Your task to perform on an android device: Open Google Maps Image 0: 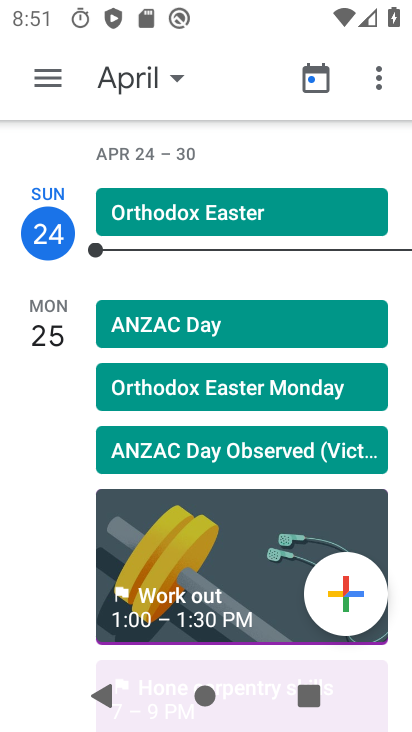
Step 0: press home button
Your task to perform on an android device: Open Google Maps Image 1: 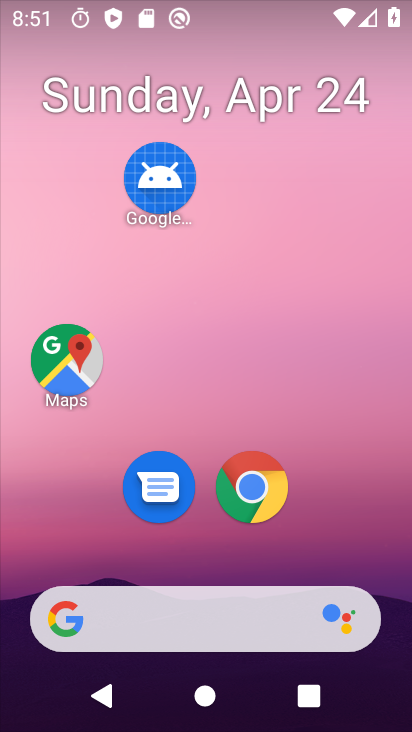
Step 1: click (85, 364)
Your task to perform on an android device: Open Google Maps Image 2: 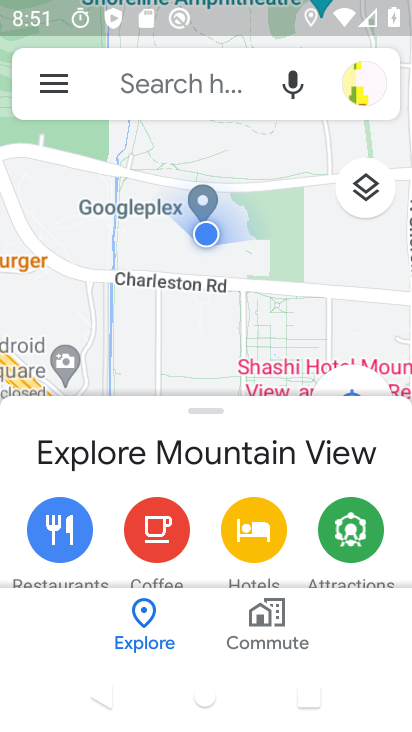
Step 2: task complete